Your task to perform on an android device: toggle notifications settings in the gmail app Image 0: 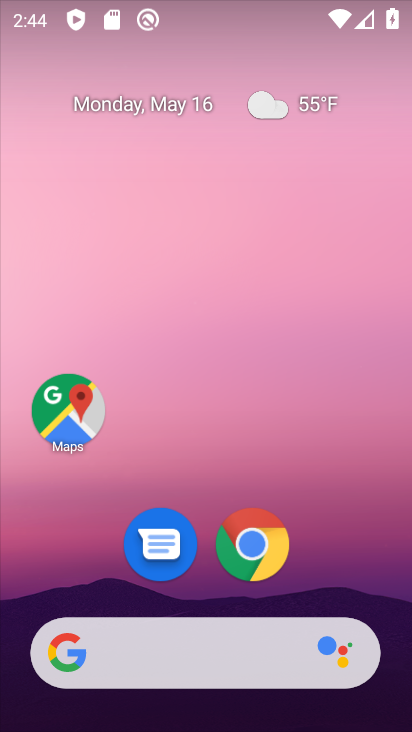
Step 0: drag from (353, 526) to (260, 1)
Your task to perform on an android device: toggle notifications settings in the gmail app Image 1: 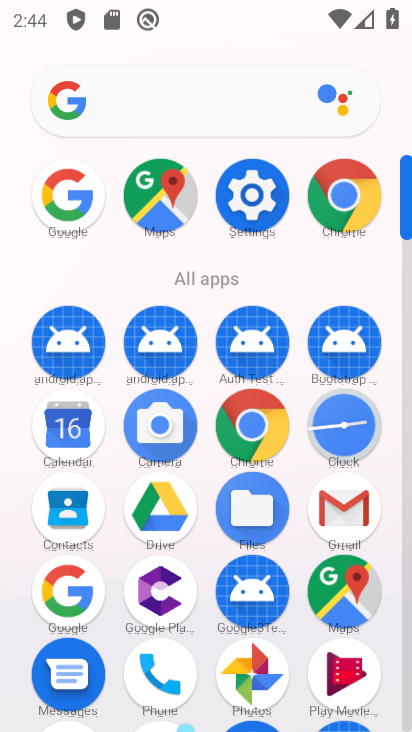
Step 1: click (366, 510)
Your task to perform on an android device: toggle notifications settings in the gmail app Image 2: 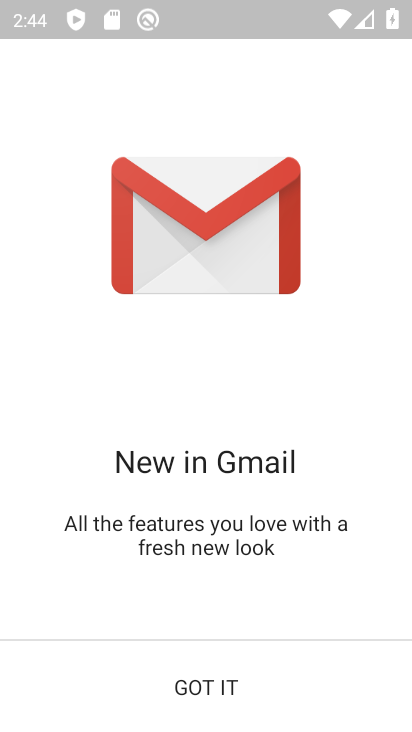
Step 2: click (202, 694)
Your task to perform on an android device: toggle notifications settings in the gmail app Image 3: 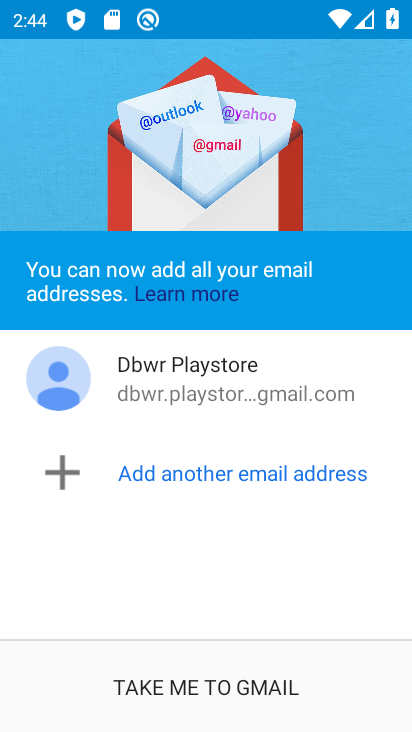
Step 3: click (138, 673)
Your task to perform on an android device: toggle notifications settings in the gmail app Image 4: 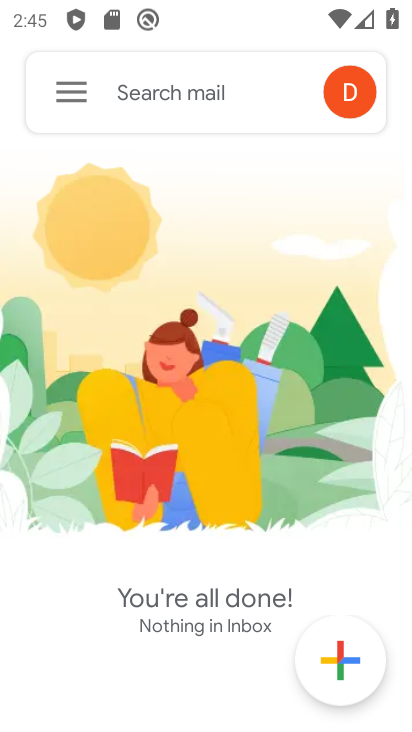
Step 4: click (70, 71)
Your task to perform on an android device: toggle notifications settings in the gmail app Image 5: 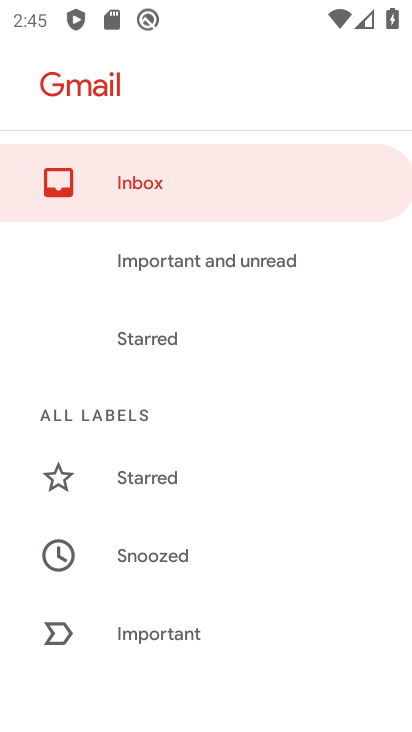
Step 5: drag from (155, 641) to (84, 236)
Your task to perform on an android device: toggle notifications settings in the gmail app Image 6: 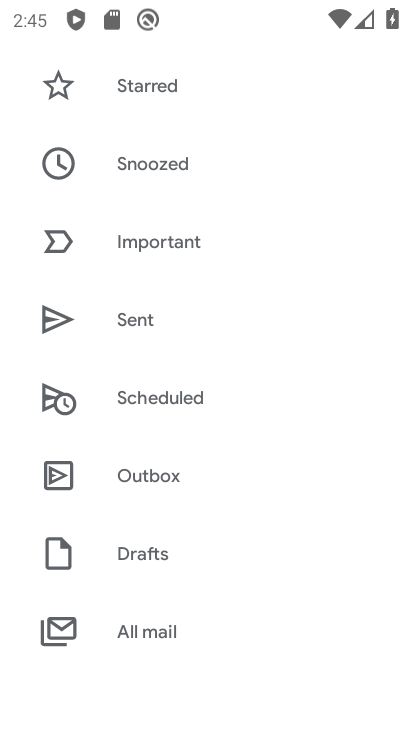
Step 6: drag from (130, 610) to (102, 239)
Your task to perform on an android device: toggle notifications settings in the gmail app Image 7: 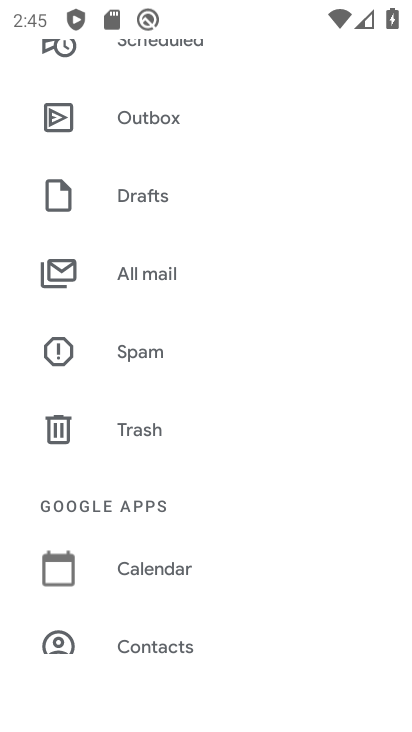
Step 7: drag from (179, 458) to (168, 243)
Your task to perform on an android device: toggle notifications settings in the gmail app Image 8: 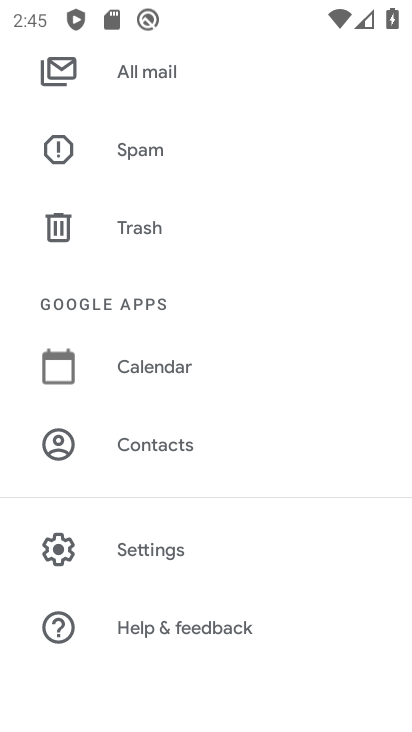
Step 8: click (144, 554)
Your task to perform on an android device: toggle notifications settings in the gmail app Image 9: 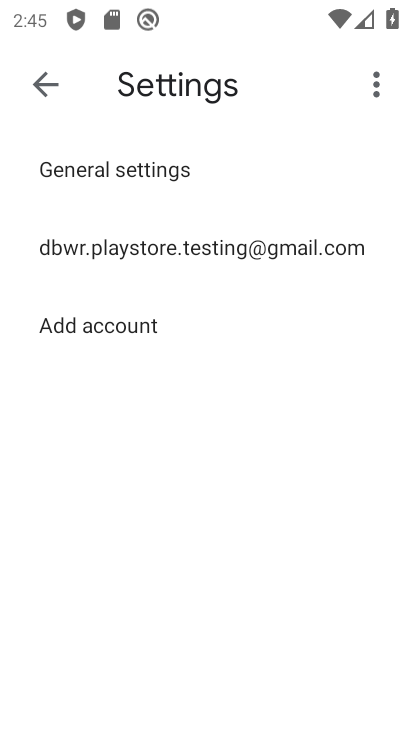
Step 9: click (139, 246)
Your task to perform on an android device: toggle notifications settings in the gmail app Image 10: 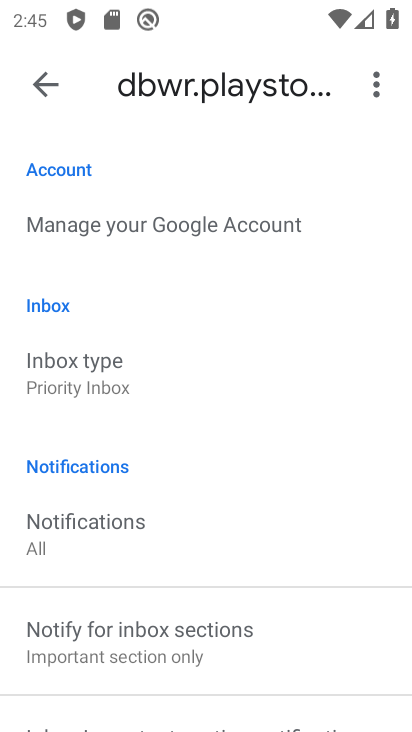
Step 10: click (132, 532)
Your task to perform on an android device: toggle notifications settings in the gmail app Image 11: 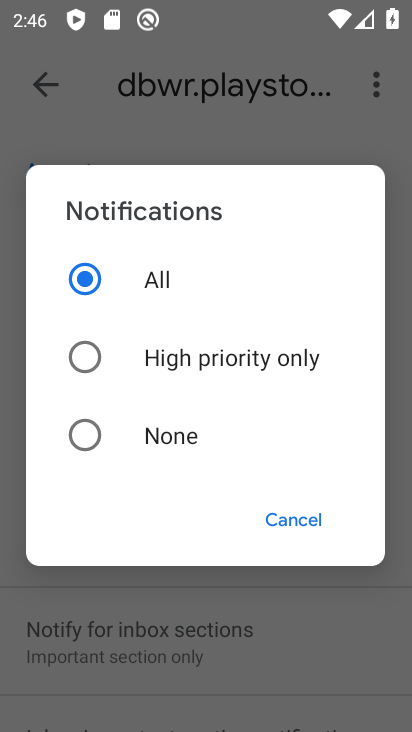
Step 11: click (66, 361)
Your task to perform on an android device: toggle notifications settings in the gmail app Image 12: 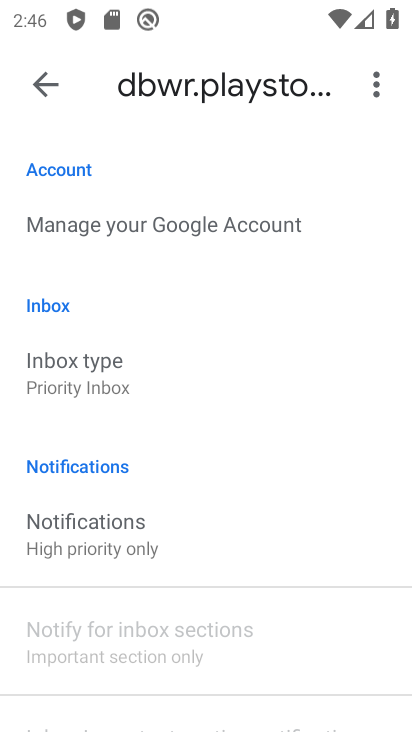
Step 12: task complete